Your task to perform on an android device: turn off airplane mode Image 0: 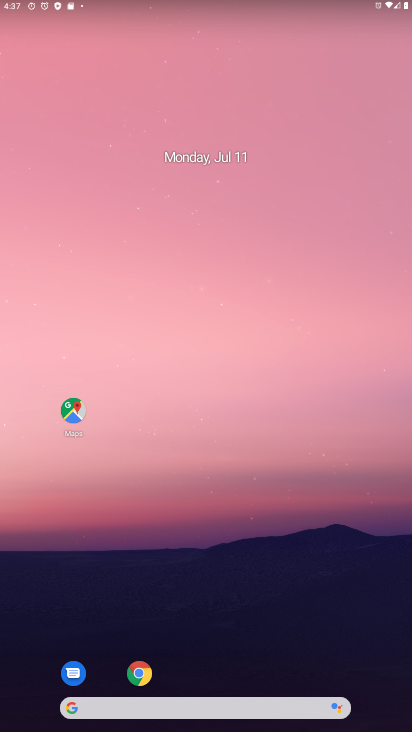
Step 0: drag from (247, 625) to (280, 119)
Your task to perform on an android device: turn off airplane mode Image 1: 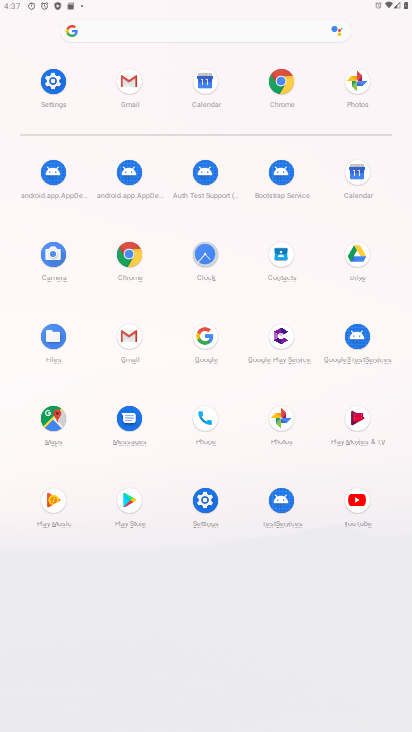
Step 1: task complete